Your task to perform on an android device: turn on location history Image 0: 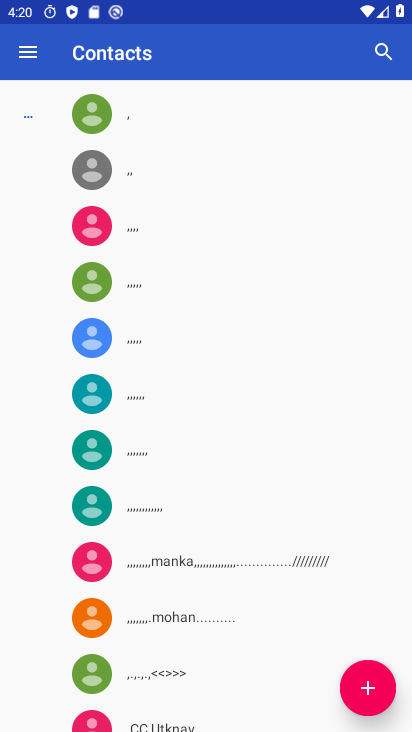
Step 0: press home button
Your task to perform on an android device: turn on location history Image 1: 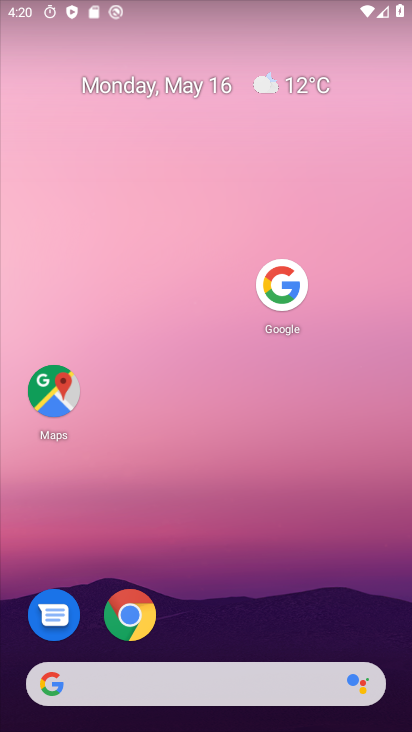
Step 1: drag from (209, 666) to (404, 607)
Your task to perform on an android device: turn on location history Image 2: 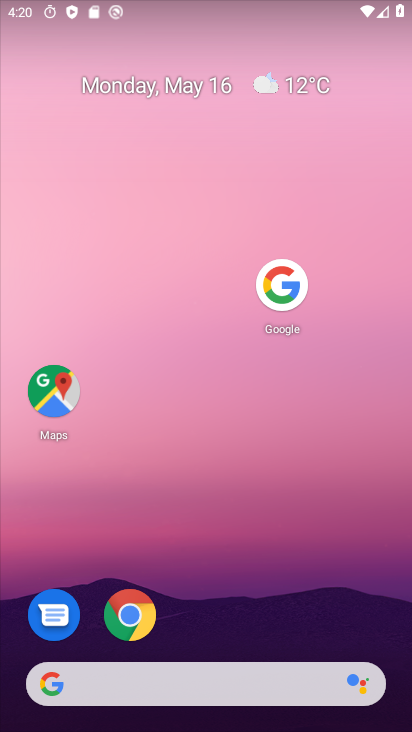
Step 2: drag from (214, 640) to (169, 12)
Your task to perform on an android device: turn on location history Image 3: 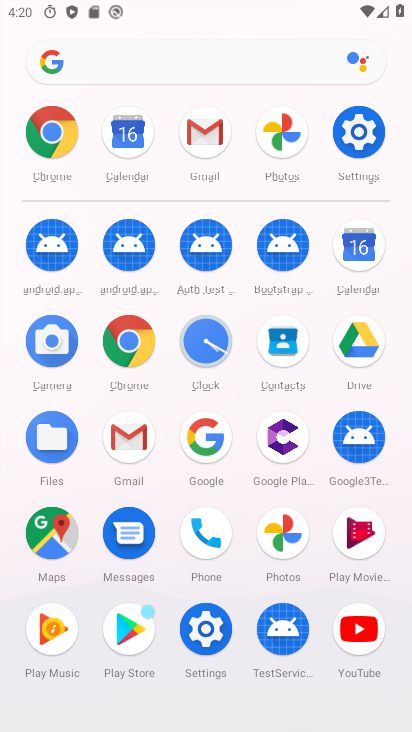
Step 3: click (206, 641)
Your task to perform on an android device: turn on location history Image 4: 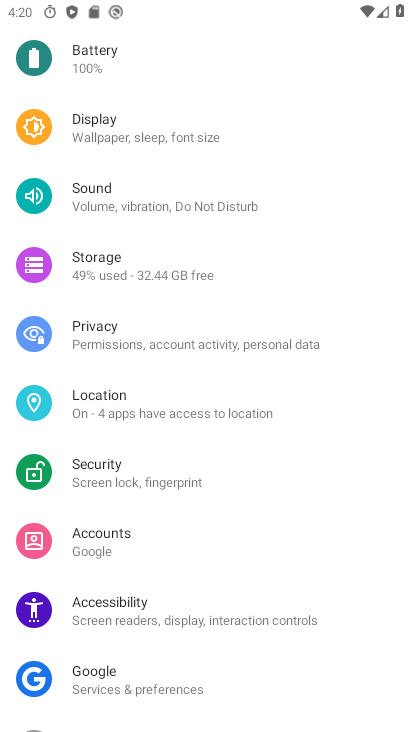
Step 4: click (104, 411)
Your task to perform on an android device: turn on location history Image 5: 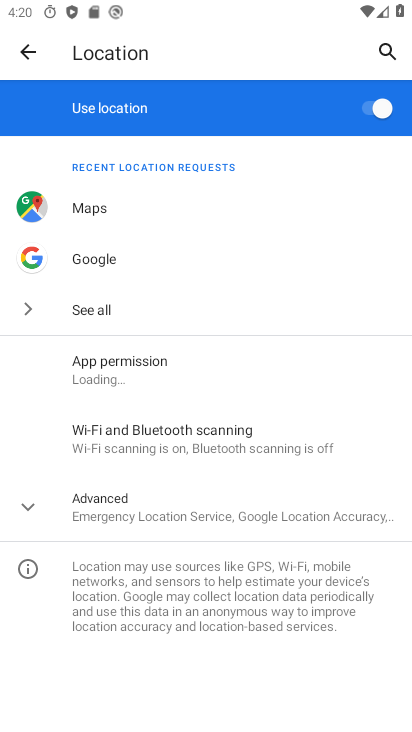
Step 5: click (127, 515)
Your task to perform on an android device: turn on location history Image 6: 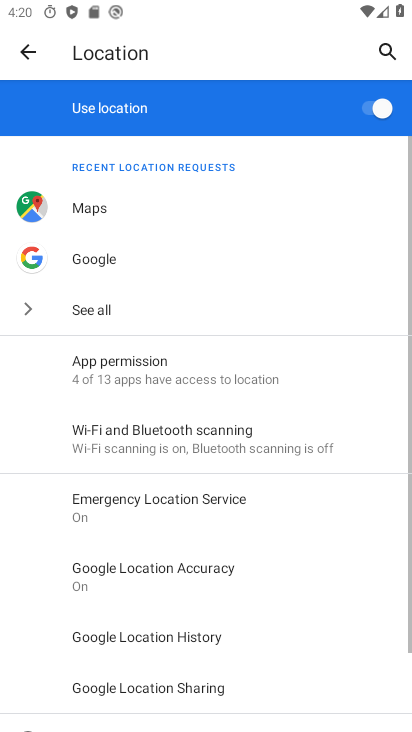
Step 6: click (175, 614)
Your task to perform on an android device: turn on location history Image 7: 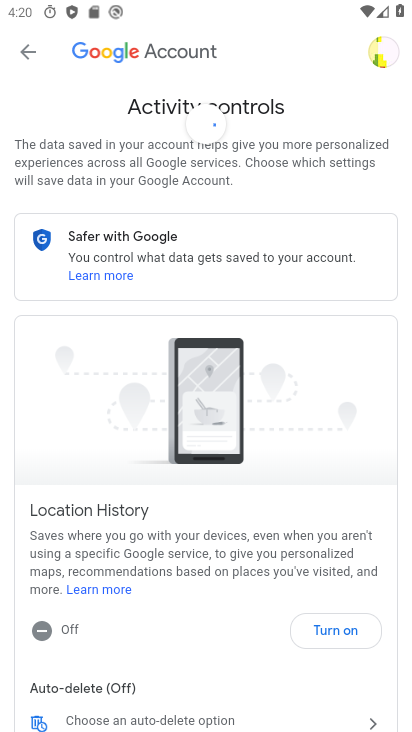
Step 7: click (354, 631)
Your task to perform on an android device: turn on location history Image 8: 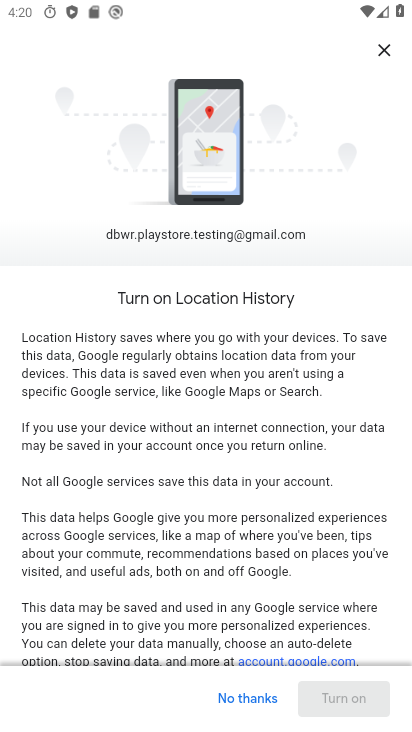
Step 8: drag from (354, 631) to (185, 13)
Your task to perform on an android device: turn on location history Image 9: 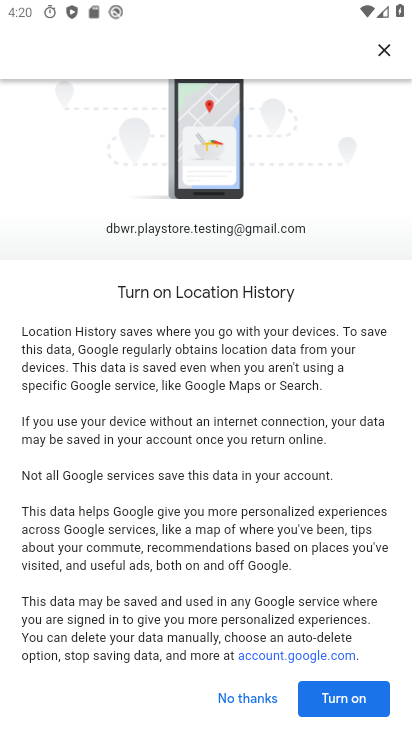
Step 9: click (338, 705)
Your task to perform on an android device: turn on location history Image 10: 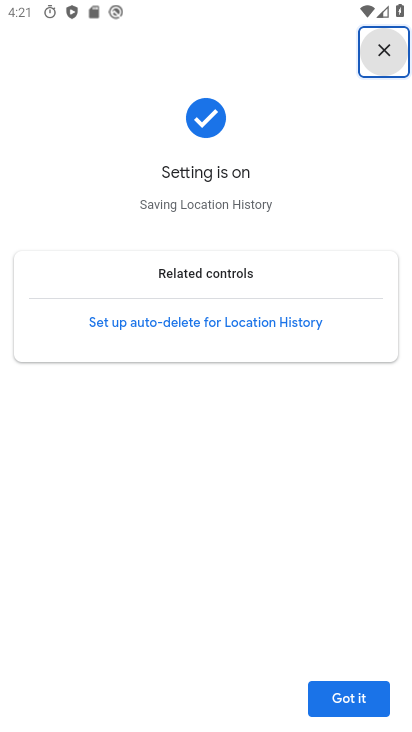
Step 10: click (374, 688)
Your task to perform on an android device: turn on location history Image 11: 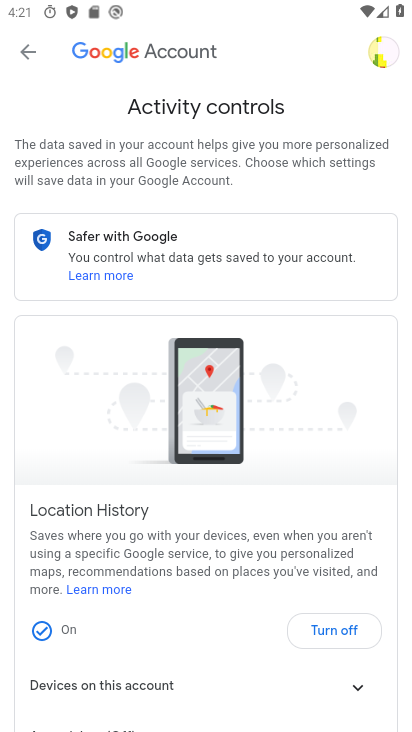
Step 11: task complete